Your task to perform on an android device: Open the web browser Image 0: 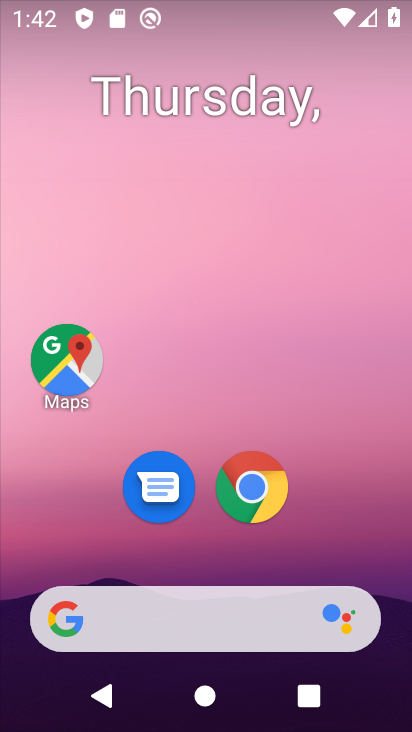
Step 0: click (256, 477)
Your task to perform on an android device: Open the web browser Image 1: 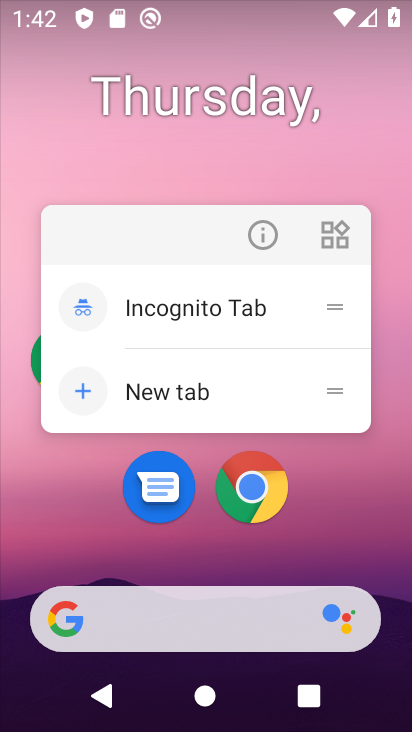
Step 1: click (252, 473)
Your task to perform on an android device: Open the web browser Image 2: 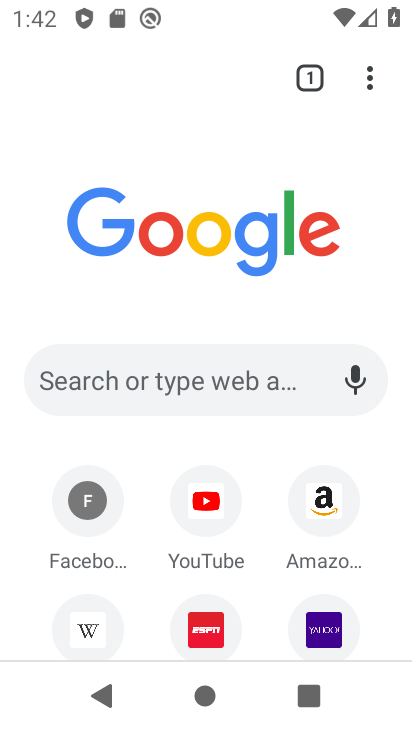
Step 2: task complete